Your task to perform on an android device: Search for 12ft 120W LED tube light on home depot Image 0: 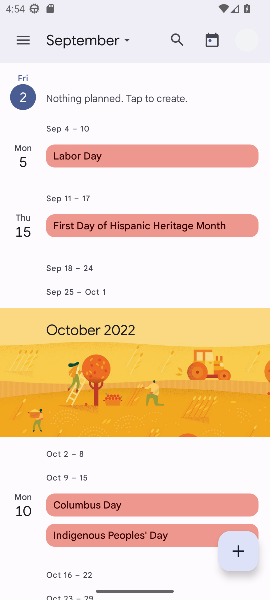
Step 0: press home button
Your task to perform on an android device: Search for 12ft 120W LED tube light on home depot Image 1: 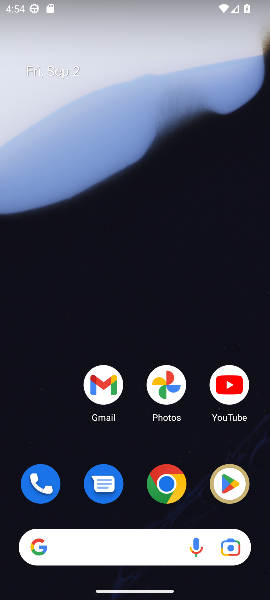
Step 1: click (163, 484)
Your task to perform on an android device: Search for 12ft 120W LED tube light on home depot Image 2: 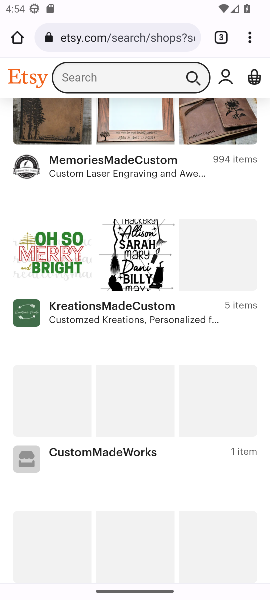
Step 2: click (157, 37)
Your task to perform on an android device: Search for 12ft 120W LED tube light on home depot Image 3: 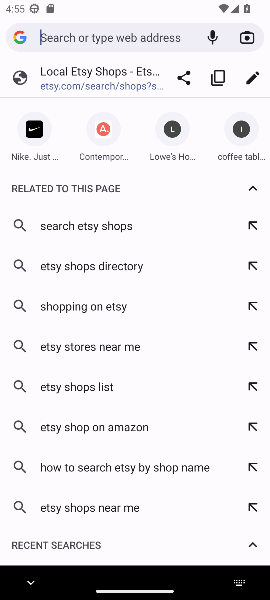
Step 3: press enter
Your task to perform on an android device: Search for 12ft 120W LED tube light on home depot Image 4: 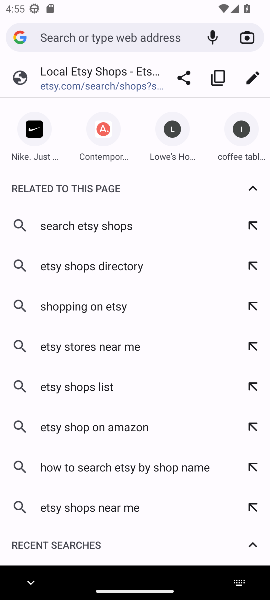
Step 4: type "home depot"
Your task to perform on an android device: Search for 12ft 120W LED tube light on home depot Image 5: 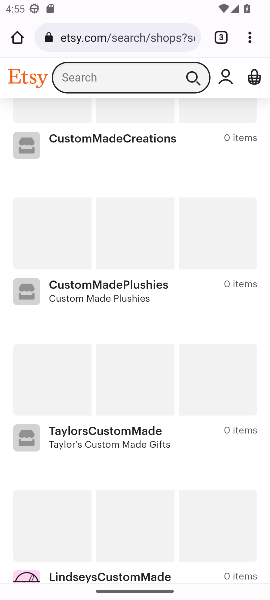
Step 5: click (150, 29)
Your task to perform on an android device: Search for 12ft 120W LED tube light on home depot Image 6: 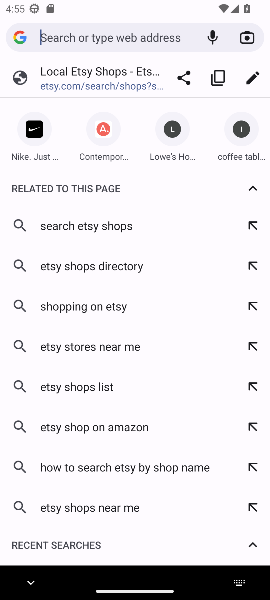
Step 6: type "home depot"
Your task to perform on an android device: Search for 12ft 120W LED tube light on home depot Image 7: 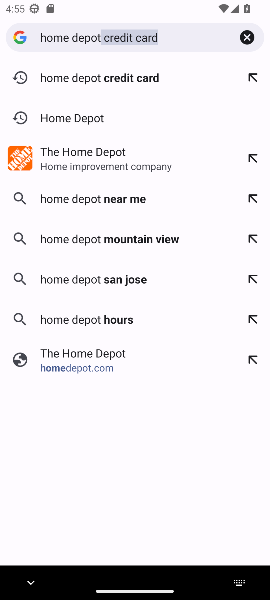
Step 7: click (100, 115)
Your task to perform on an android device: Search for 12ft 120W LED tube light on home depot Image 8: 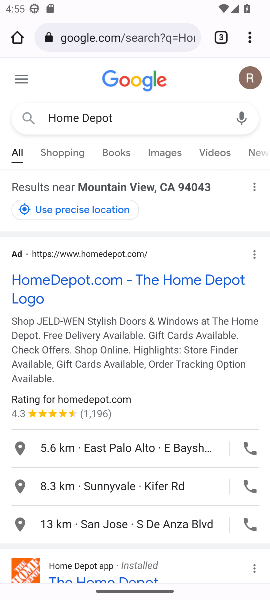
Step 8: click (162, 282)
Your task to perform on an android device: Search for 12ft 120W LED tube light on home depot Image 9: 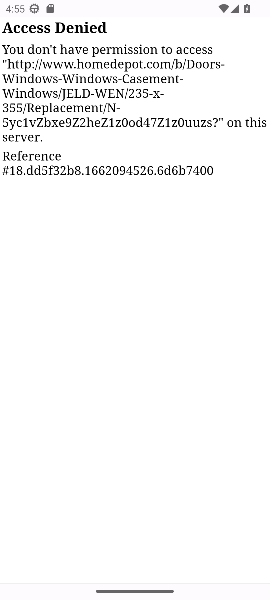
Step 9: task complete